Your task to perform on an android device: turn on bluetooth scan Image 0: 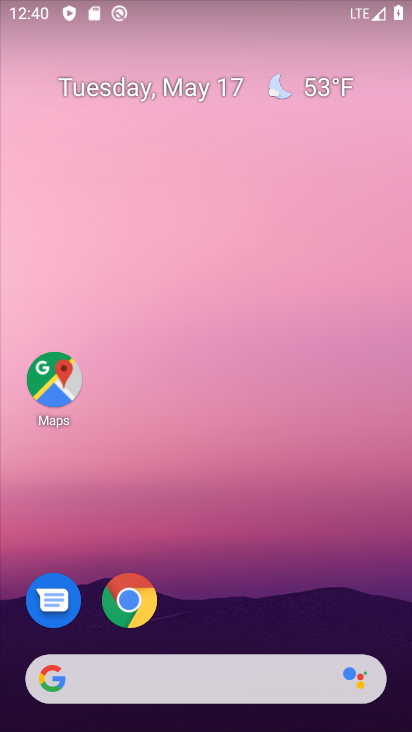
Step 0: drag from (244, 581) to (319, 76)
Your task to perform on an android device: turn on bluetooth scan Image 1: 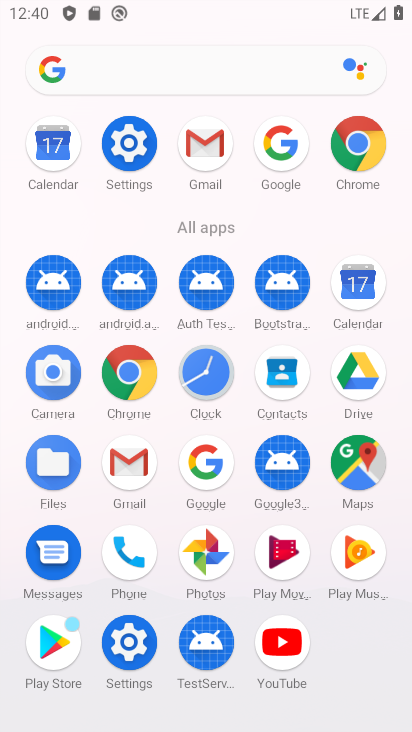
Step 1: click (128, 152)
Your task to perform on an android device: turn on bluetooth scan Image 2: 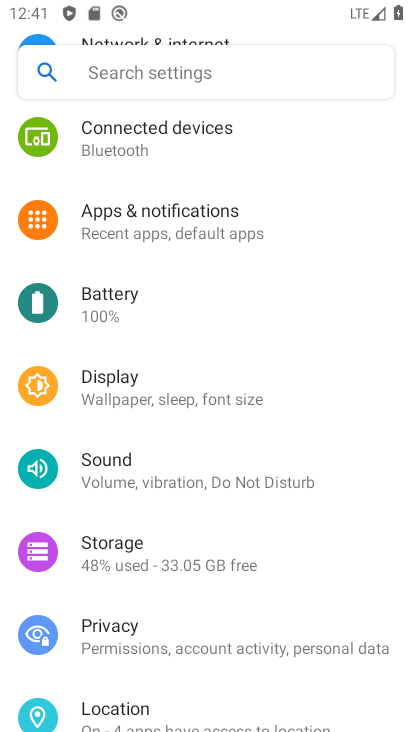
Step 2: click (81, 708)
Your task to perform on an android device: turn on bluetooth scan Image 3: 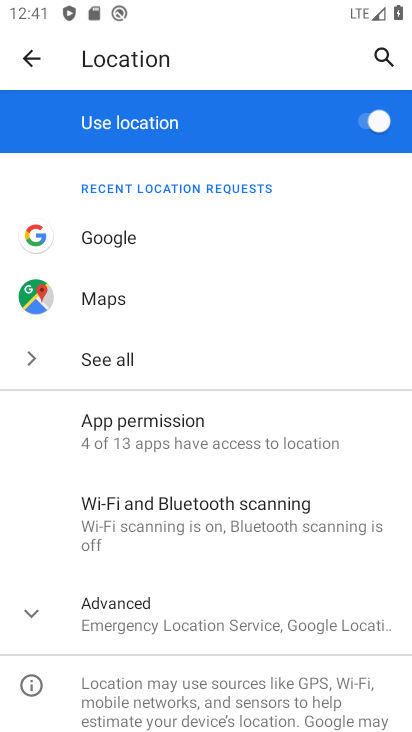
Step 3: click (129, 615)
Your task to perform on an android device: turn on bluetooth scan Image 4: 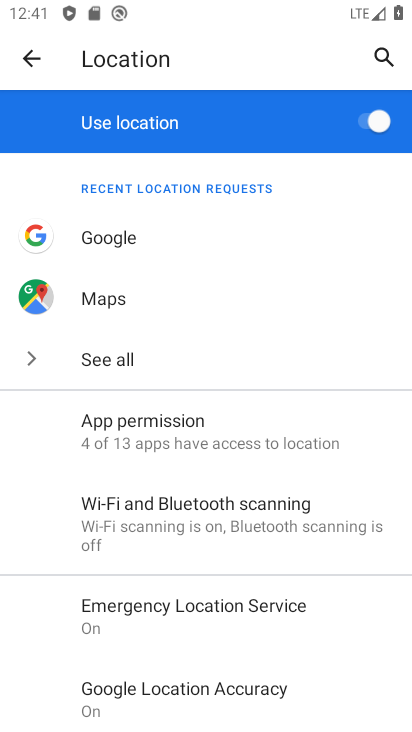
Step 4: click (170, 535)
Your task to perform on an android device: turn on bluetooth scan Image 5: 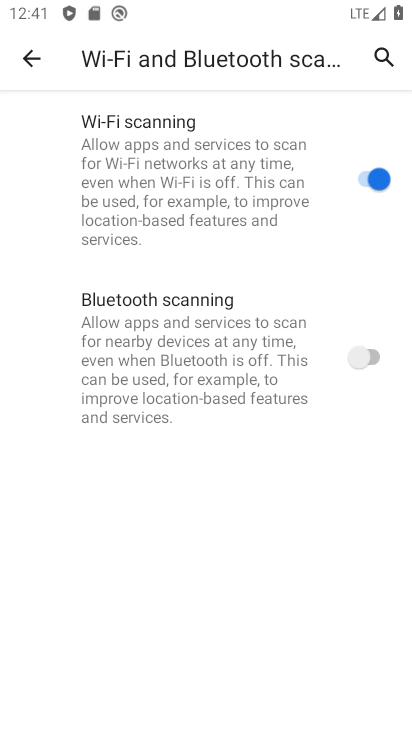
Step 5: click (373, 351)
Your task to perform on an android device: turn on bluetooth scan Image 6: 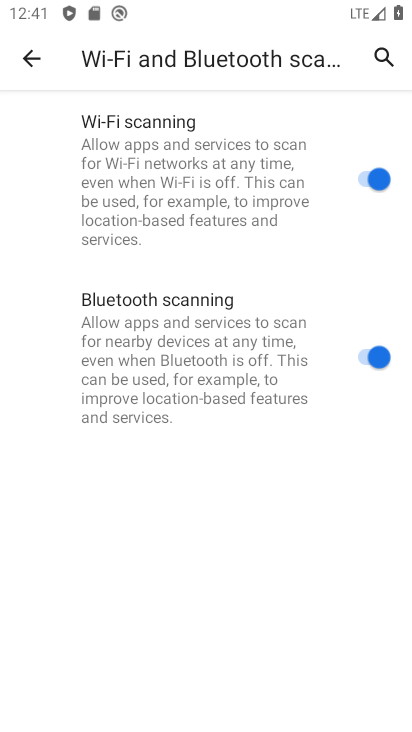
Step 6: task complete